Your task to perform on an android device: Go to Yahoo.com Image 0: 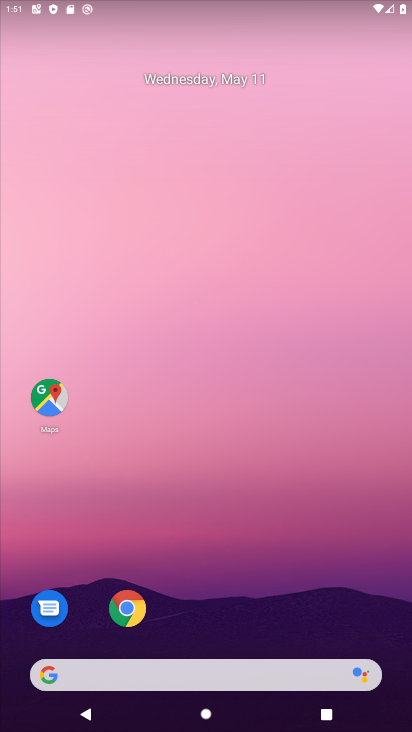
Step 0: click (134, 616)
Your task to perform on an android device: Go to Yahoo.com Image 1: 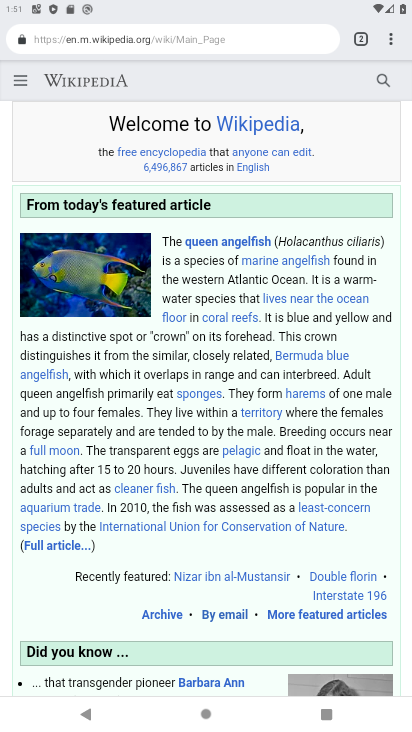
Step 1: click (353, 41)
Your task to perform on an android device: Go to Yahoo.com Image 2: 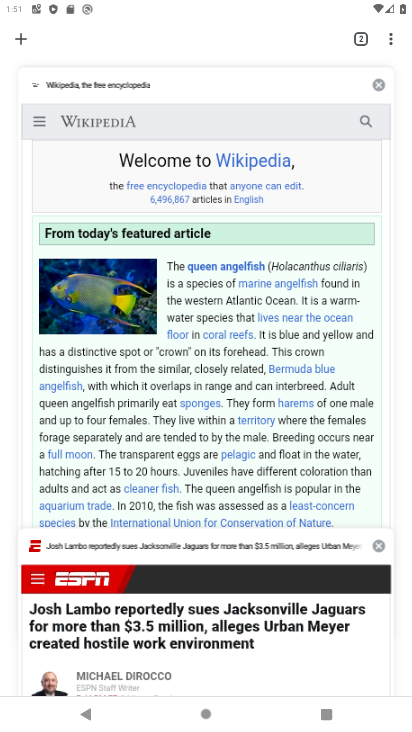
Step 2: click (383, 88)
Your task to perform on an android device: Go to Yahoo.com Image 3: 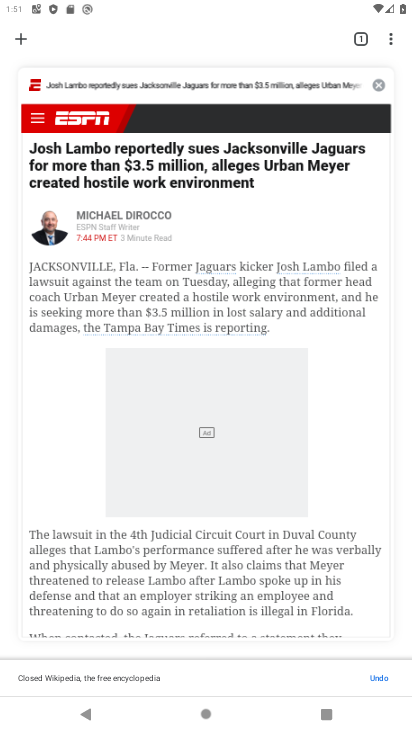
Step 3: click (383, 88)
Your task to perform on an android device: Go to Yahoo.com Image 4: 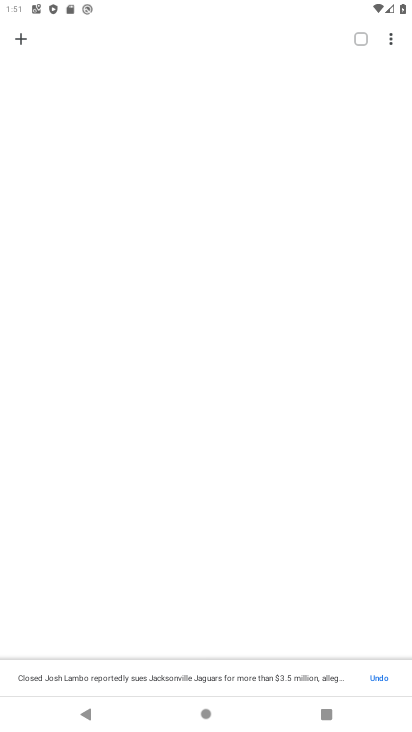
Step 4: click (17, 34)
Your task to perform on an android device: Go to Yahoo.com Image 5: 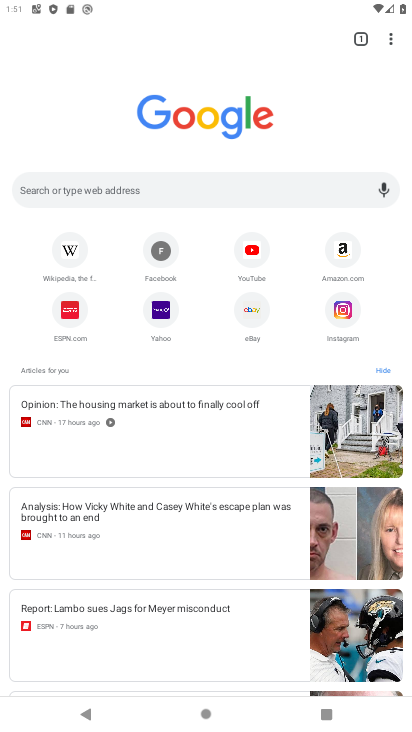
Step 5: click (162, 300)
Your task to perform on an android device: Go to Yahoo.com Image 6: 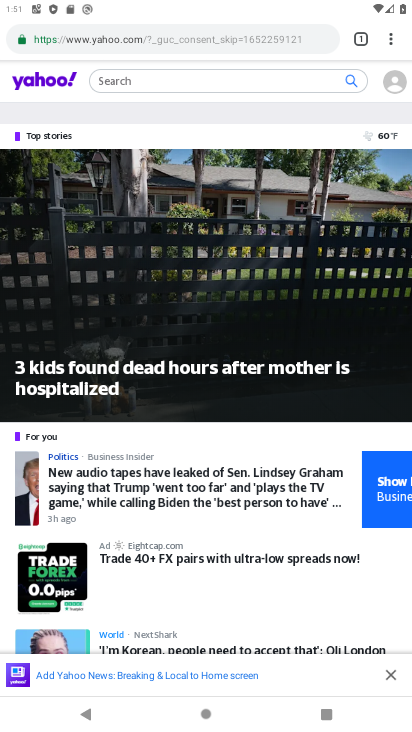
Step 6: task complete